Your task to perform on an android device: toggle javascript in the chrome app Image 0: 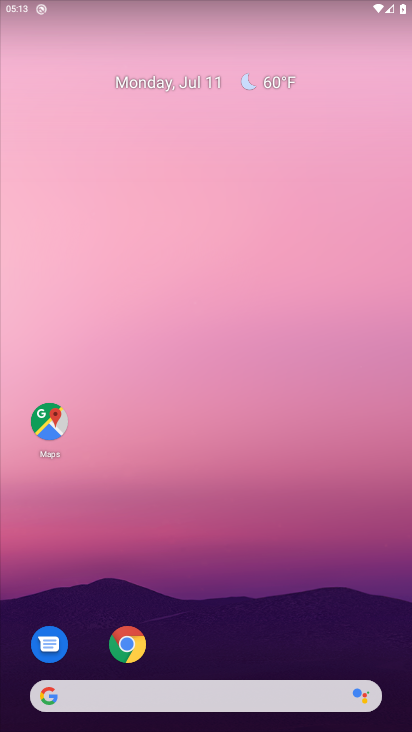
Step 0: click (137, 655)
Your task to perform on an android device: toggle javascript in the chrome app Image 1: 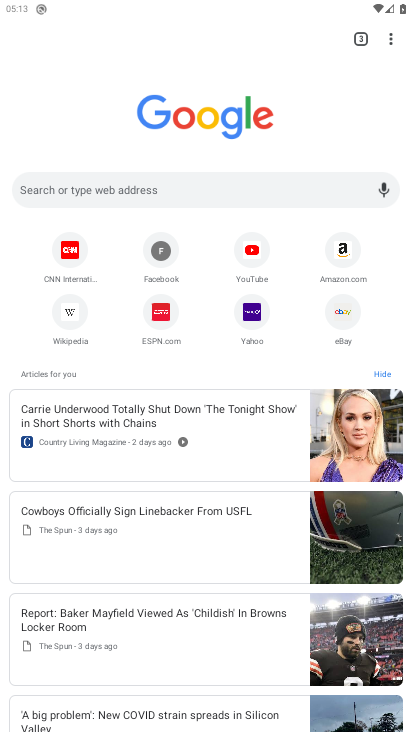
Step 1: click (387, 39)
Your task to perform on an android device: toggle javascript in the chrome app Image 2: 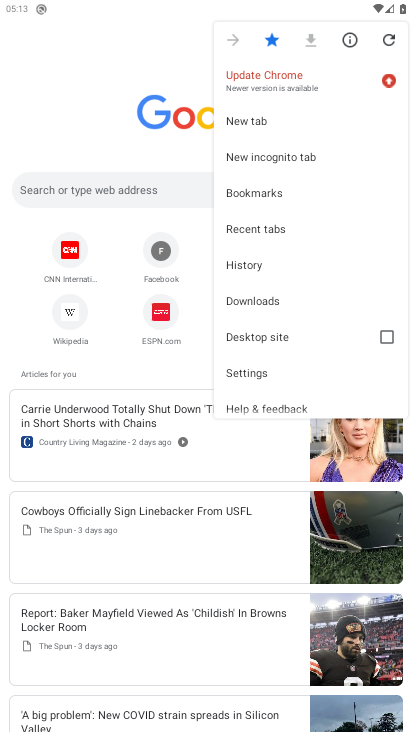
Step 2: click (235, 370)
Your task to perform on an android device: toggle javascript in the chrome app Image 3: 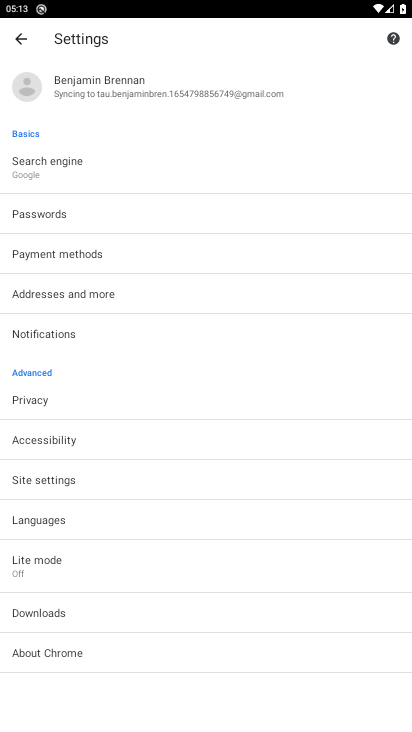
Step 3: click (25, 478)
Your task to perform on an android device: toggle javascript in the chrome app Image 4: 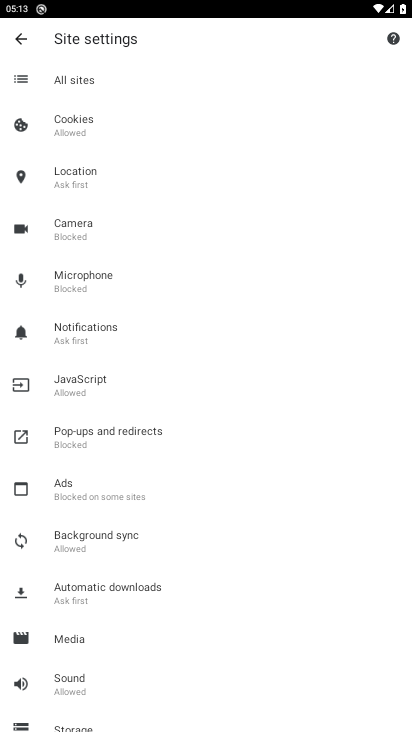
Step 4: click (108, 381)
Your task to perform on an android device: toggle javascript in the chrome app Image 5: 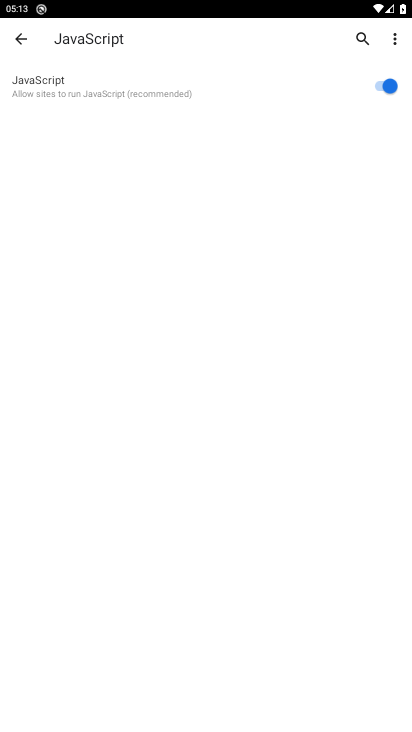
Step 5: click (381, 86)
Your task to perform on an android device: toggle javascript in the chrome app Image 6: 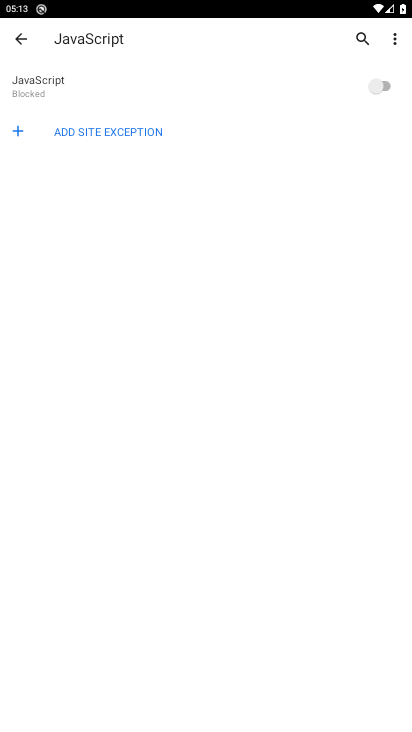
Step 6: task complete